Your task to perform on an android device: turn off picture-in-picture Image 0: 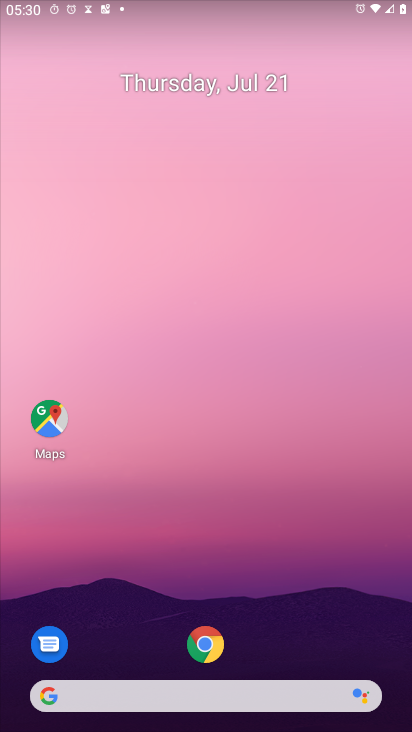
Step 0: click (206, 637)
Your task to perform on an android device: turn off picture-in-picture Image 1: 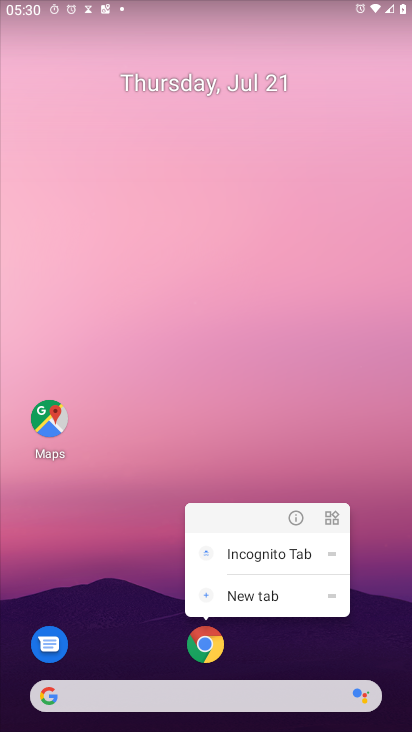
Step 1: click (300, 517)
Your task to perform on an android device: turn off picture-in-picture Image 2: 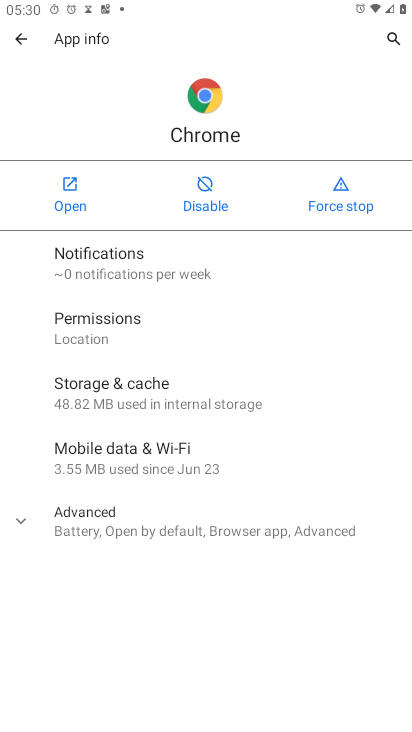
Step 2: click (21, 511)
Your task to perform on an android device: turn off picture-in-picture Image 3: 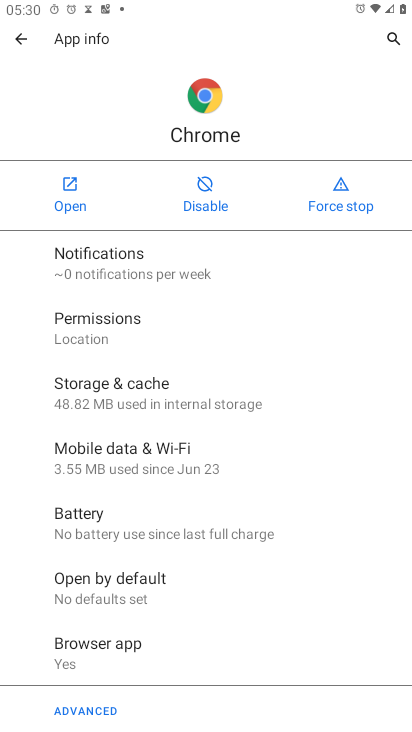
Step 3: drag from (197, 608) to (257, 393)
Your task to perform on an android device: turn off picture-in-picture Image 4: 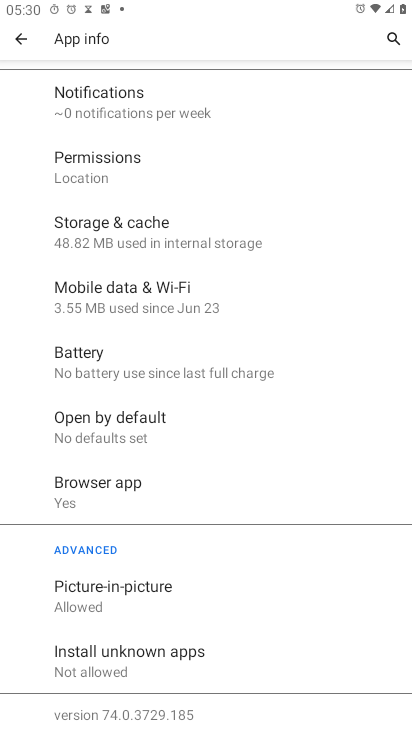
Step 4: click (150, 602)
Your task to perform on an android device: turn off picture-in-picture Image 5: 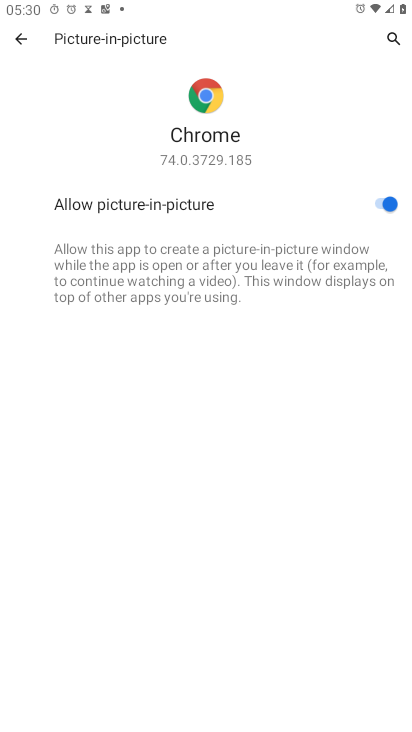
Step 5: click (393, 197)
Your task to perform on an android device: turn off picture-in-picture Image 6: 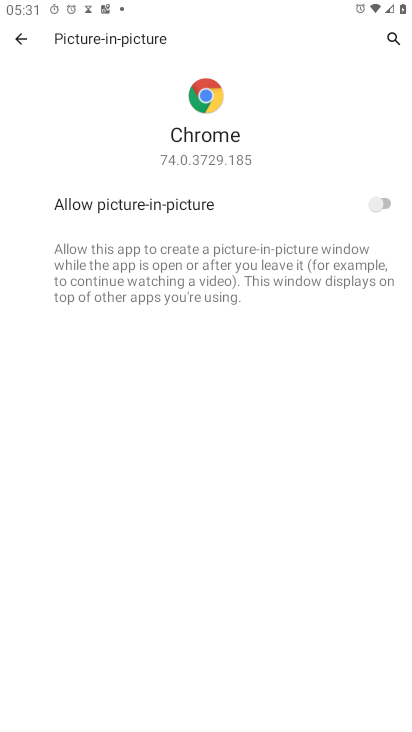
Step 6: task complete